Your task to perform on an android device: Show me popular games on the Play Store Image 0: 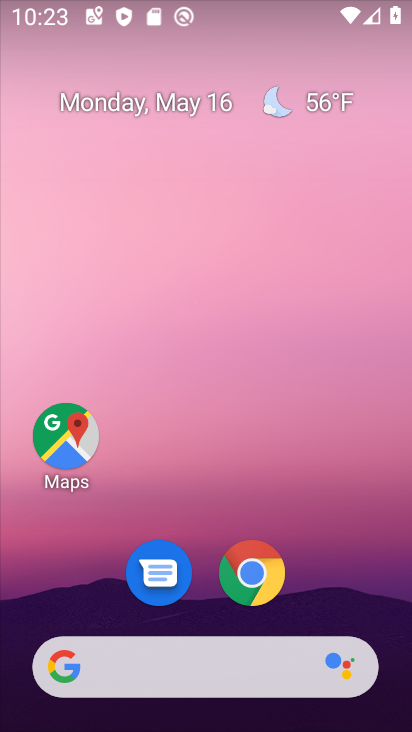
Step 0: drag from (218, 709) to (252, 173)
Your task to perform on an android device: Show me popular games on the Play Store Image 1: 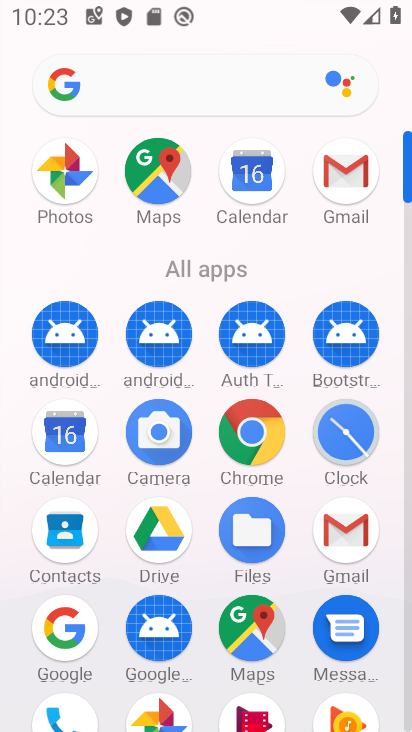
Step 1: drag from (259, 577) to (272, 273)
Your task to perform on an android device: Show me popular games on the Play Store Image 2: 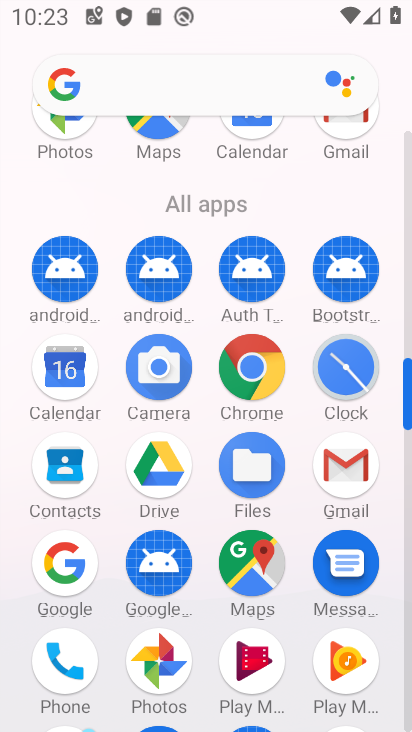
Step 2: drag from (354, 664) to (354, 179)
Your task to perform on an android device: Show me popular games on the Play Store Image 3: 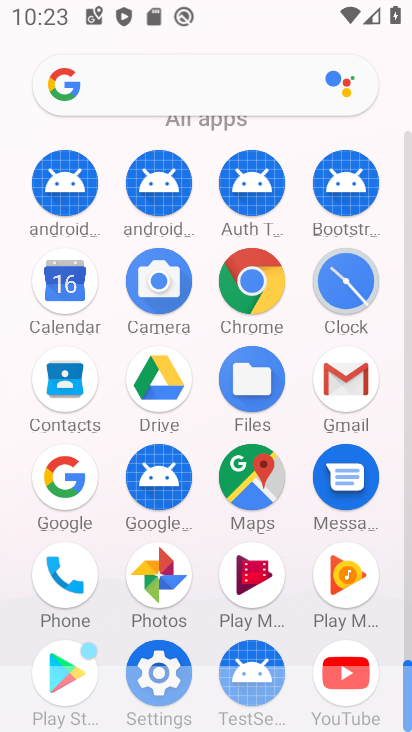
Step 3: click (58, 642)
Your task to perform on an android device: Show me popular games on the Play Store Image 4: 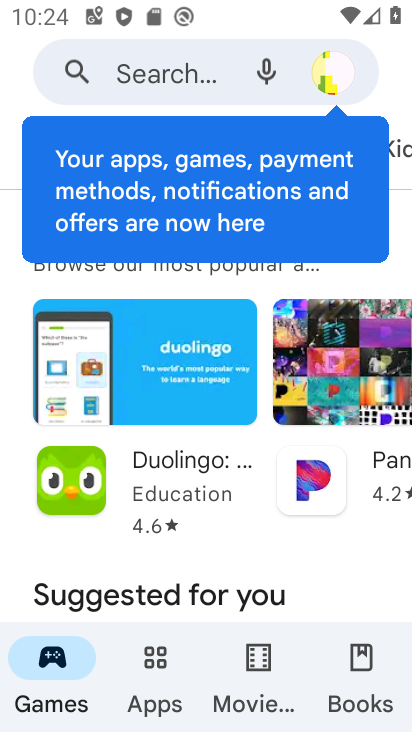
Step 4: task complete